Your task to perform on an android device: turn on wifi Image 0: 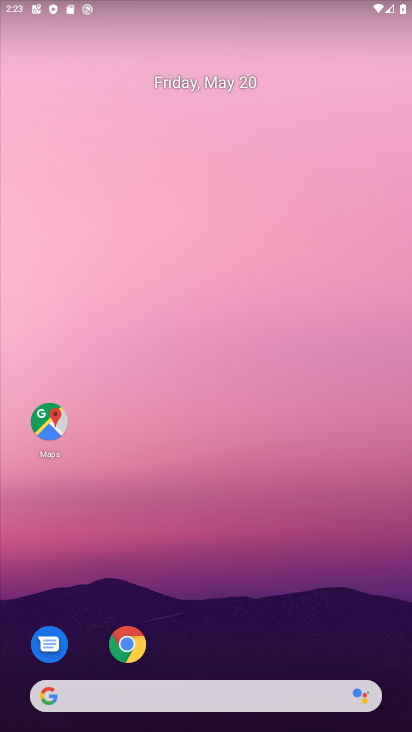
Step 0: drag from (375, 7) to (349, 473)
Your task to perform on an android device: turn on wifi Image 1: 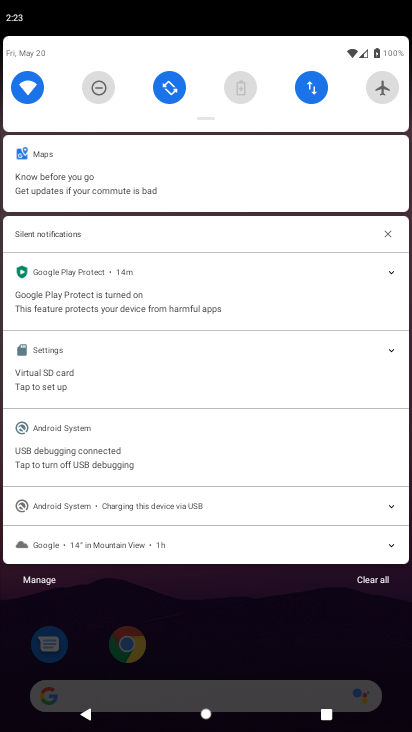
Step 1: task complete